Your task to perform on an android device: turn notification dots off Image 0: 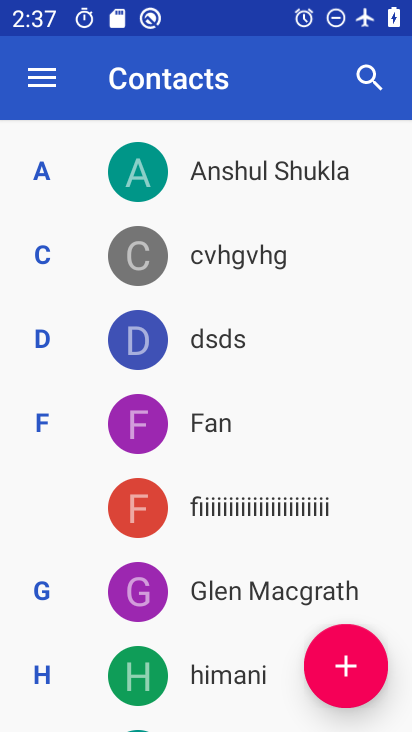
Step 0: press home button
Your task to perform on an android device: turn notification dots off Image 1: 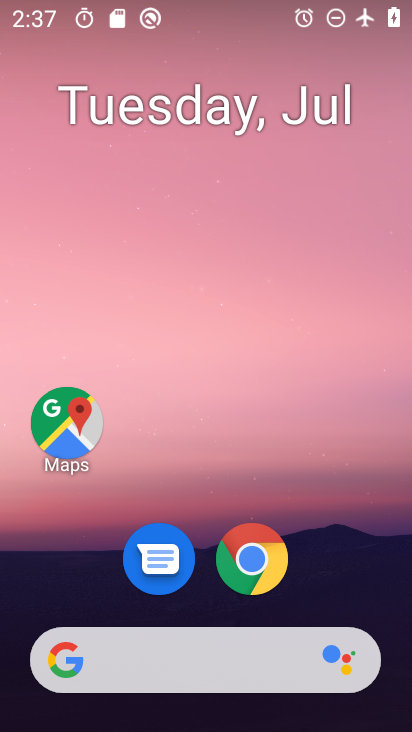
Step 1: drag from (342, 601) to (410, 270)
Your task to perform on an android device: turn notification dots off Image 2: 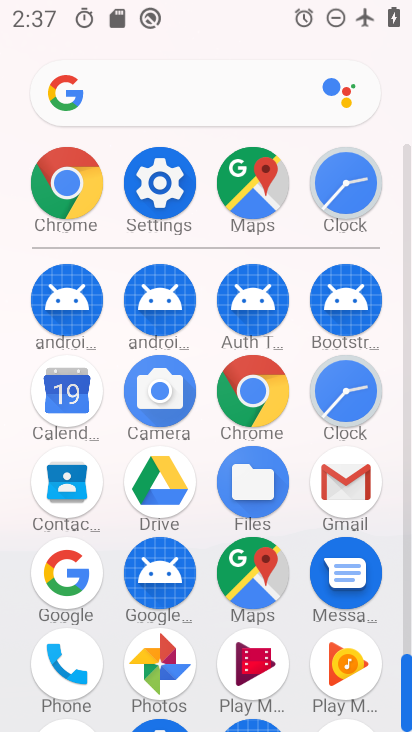
Step 2: click (163, 199)
Your task to perform on an android device: turn notification dots off Image 3: 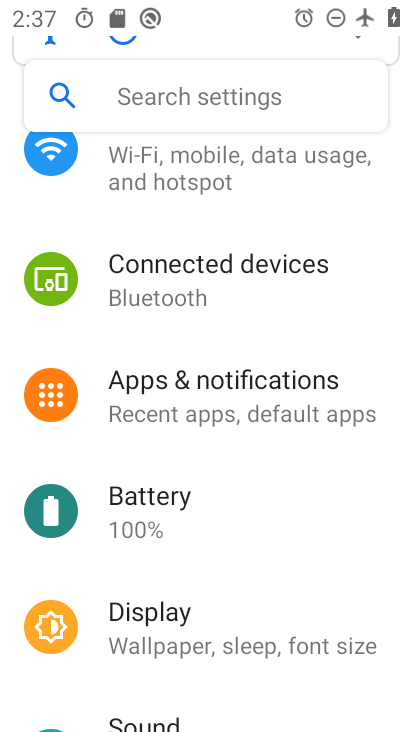
Step 3: drag from (360, 301) to (370, 367)
Your task to perform on an android device: turn notification dots off Image 4: 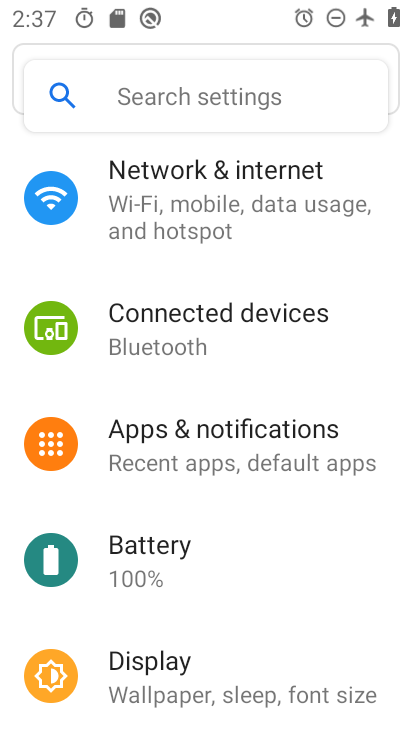
Step 4: drag from (354, 286) to (365, 398)
Your task to perform on an android device: turn notification dots off Image 5: 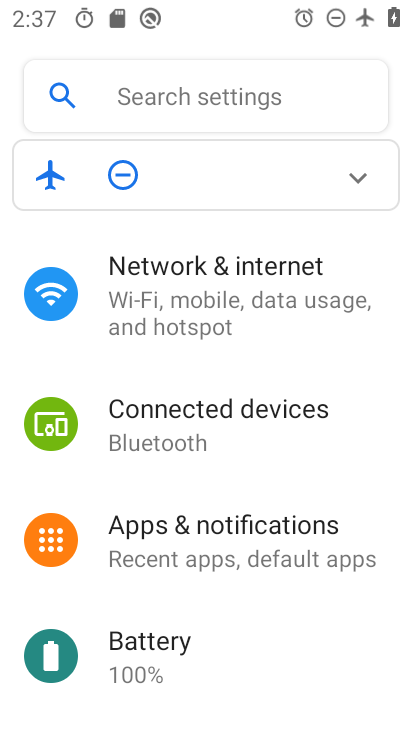
Step 5: click (365, 518)
Your task to perform on an android device: turn notification dots off Image 6: 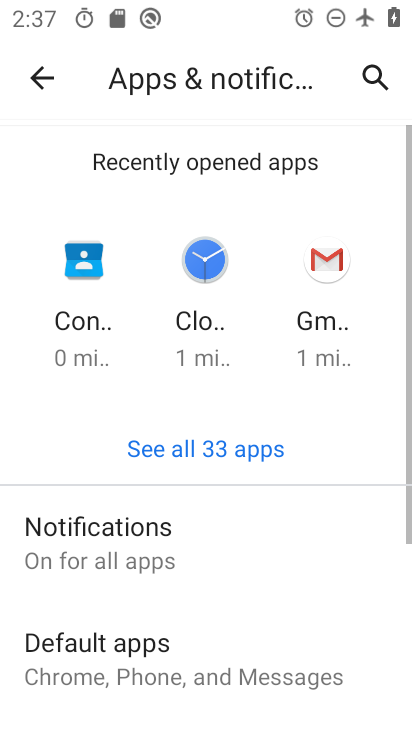
Step 6: drag from (350, 540) to (347, 456)
Your task to perform on an android device: turn notification dots off Image 7: 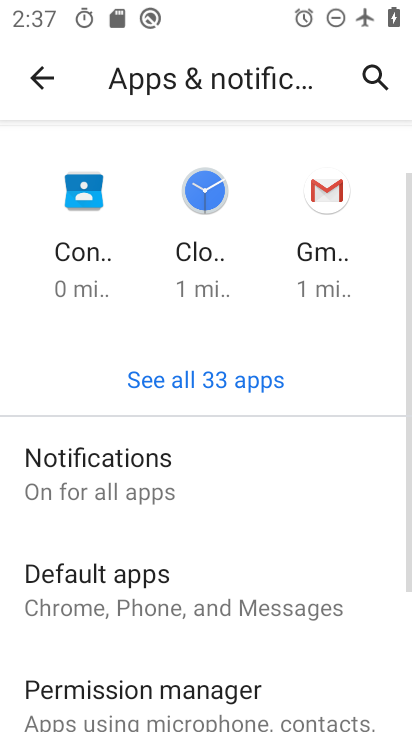
Step 7: drag from (329, 527) to (334, 460)
Your task to perform on an android device: turn notification dots off Image 8: 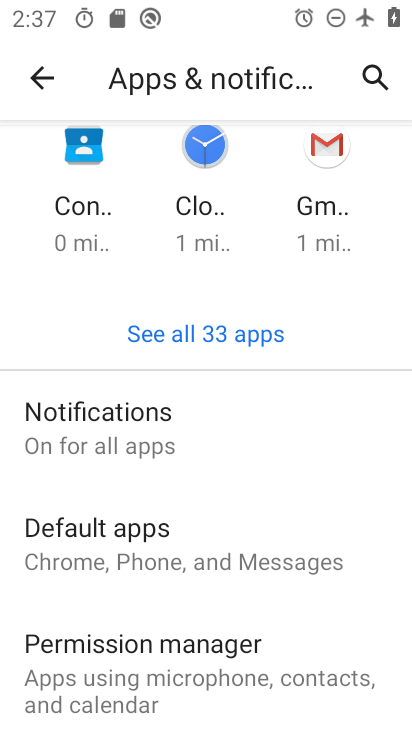
Step 8: drag from (329, 579) to (337, 455)
Your task to perform on an android device: turn notification dots off Image 9: 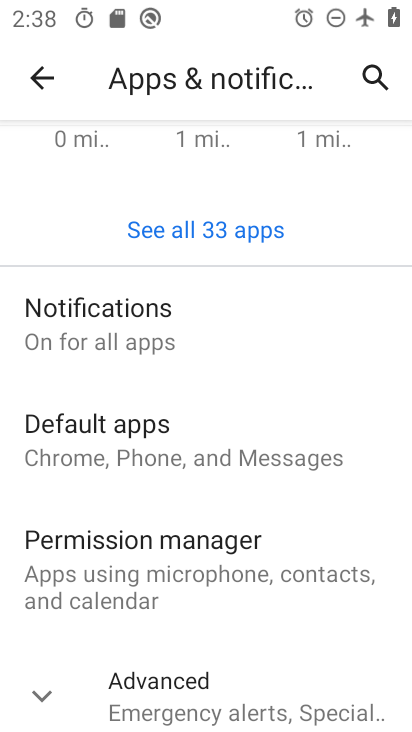
Step 9: drag from (335, 612) to (339, 569)
Your task to perform on an android device: turn notification dots off Image 10: 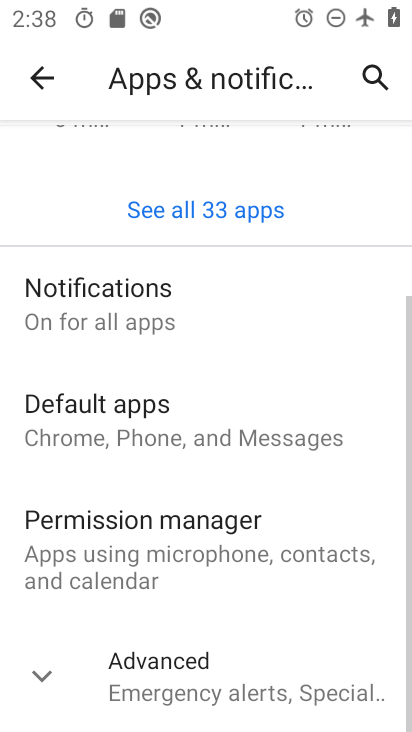
Step 10: click (270, 320)
Your task to perform on an android device: turn notification dots off Image 11: 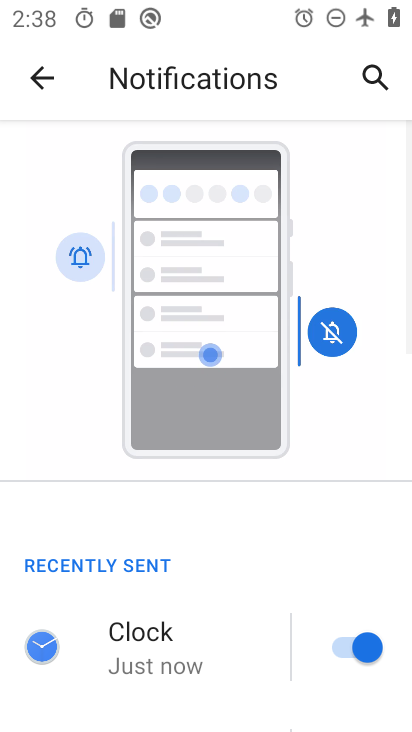
Step 11: drag from (271, 521) to (291, 416)
Your task to perform on an android device: turn notification dots off Image 12: 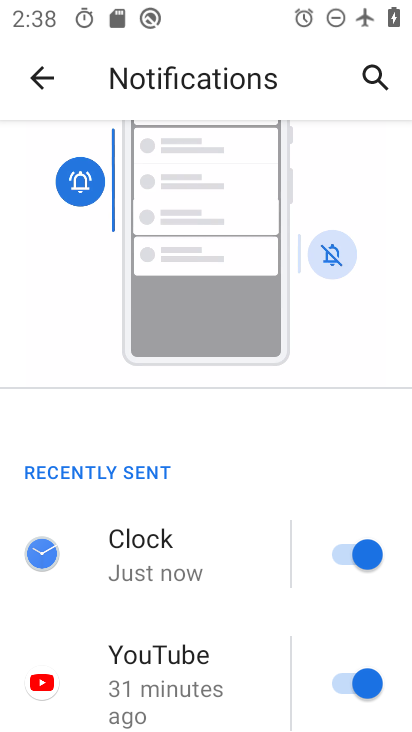
Step 12: drag from (260, 518) to (292, 322)
Your task to perform on an android device: turn notification dots off Image 13: 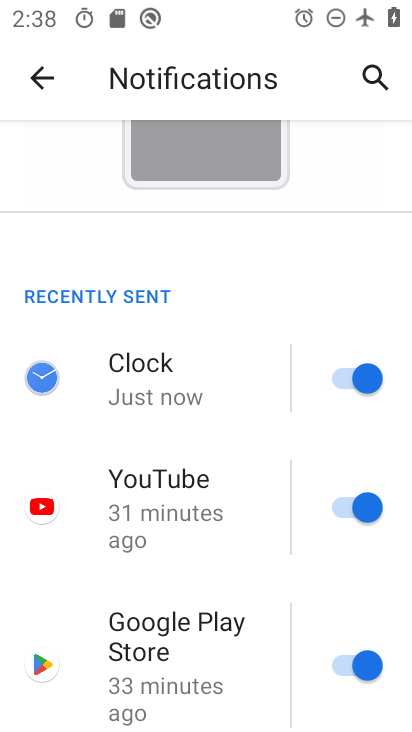
Step 13: drag from (250, 511) to (260, 414)
Your task to perform on an android device: turn notification dots off Image 14: 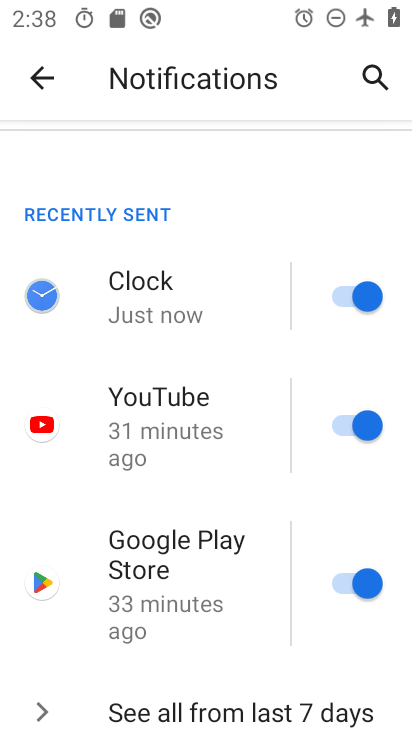
Step 14: drag from (256, 545) to (271, 438)
Your task to perform on an android device: turn notification dots off Image 15: 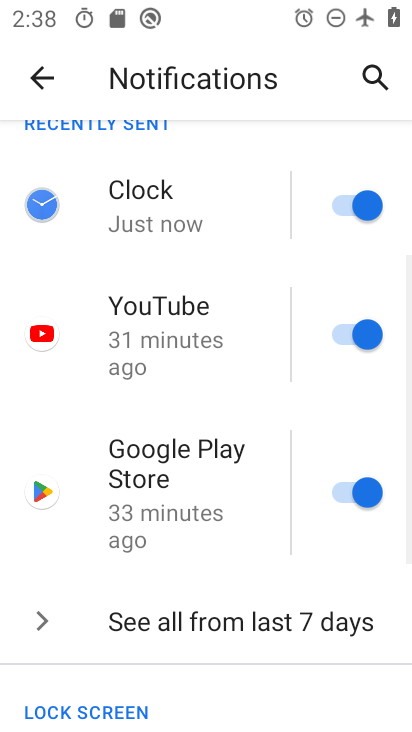
Step 15: drag from (259, 555) to (280, 396)
Your task to perform on an android device: turn notification dots off Image 16: 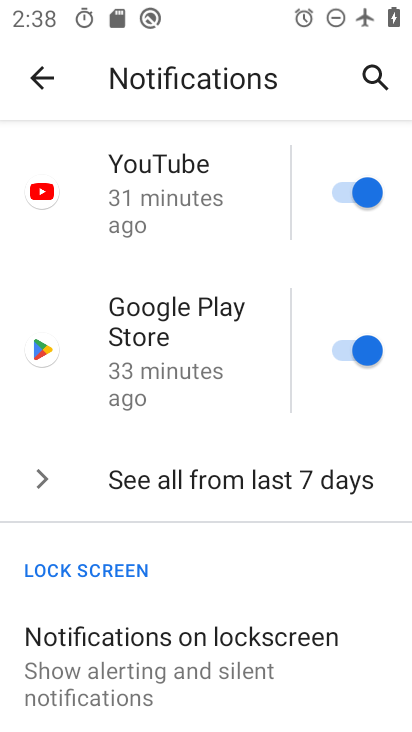
Step 16: drag from (294, 590) to (288, 377)
Your task to perform on an android device: turn notification dots off Image 17: 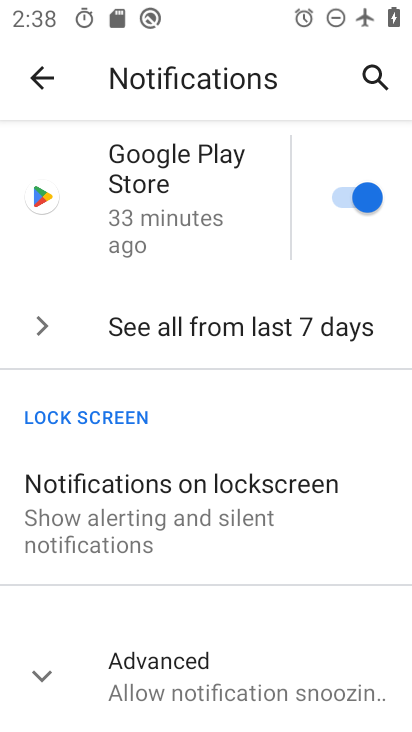
Step 17: click (279, 647)
Your task to perform on an android device: turn notification dots off Image 18: 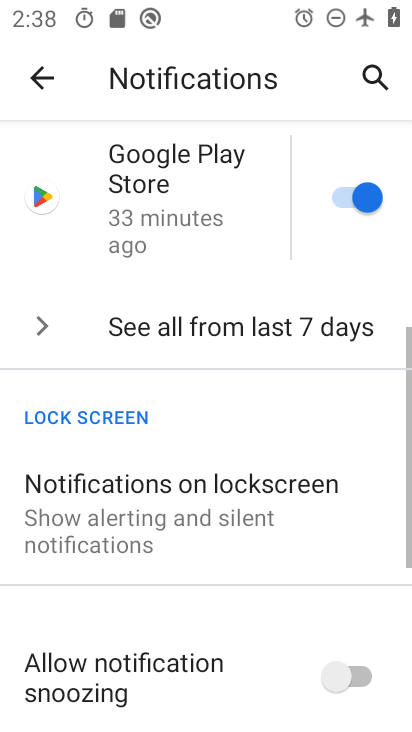
Step 18: drag from (279, 647) to (293, 550)
Your task to perform on an android device: turn notification dots off Image 19: 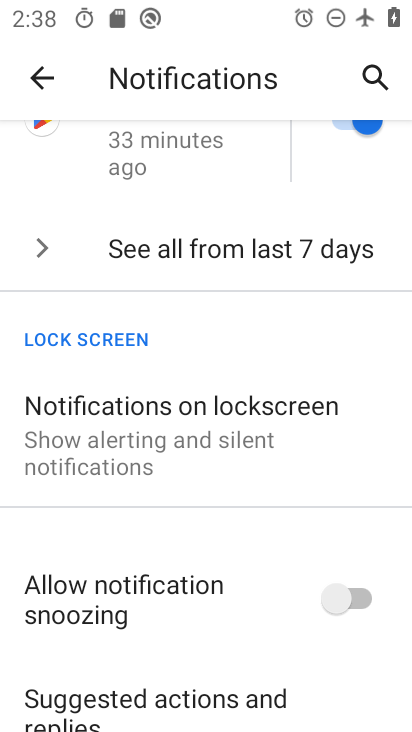
Step 19: drag from (272, 627) to (290, 512)
Your task to perform on an android device: turn notification dots off Image 20: 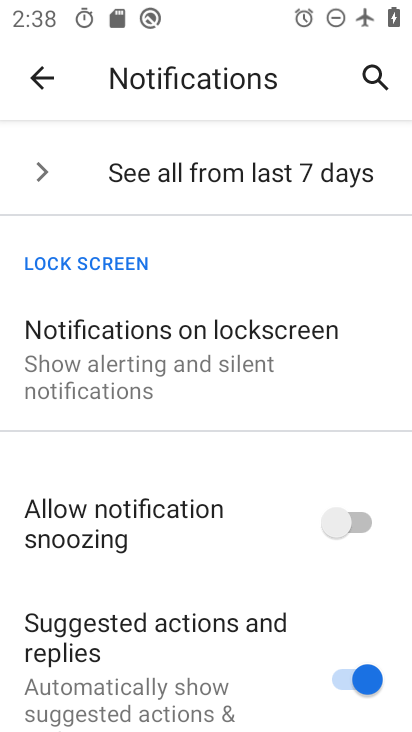
Step 20: drag from (296, 621) to (291, 510)
Your task to perform on an android device: turn notification dots off Image 21: 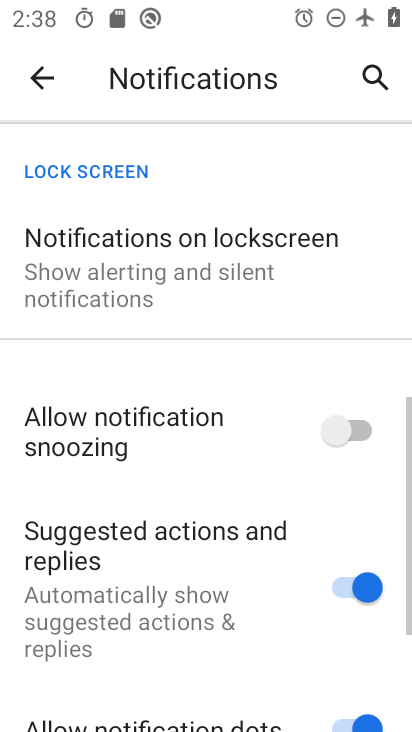
Step 21: drag from (289, 587) to (286, 403)
Your task to perform on an android device: turn notification dots off Image 22: 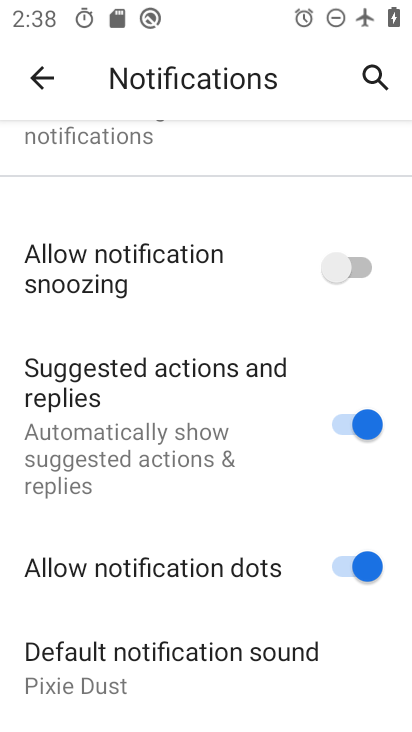
Step 22: click (349, 577)
Your task to perform on an android device: turn notification dots off Image 23: 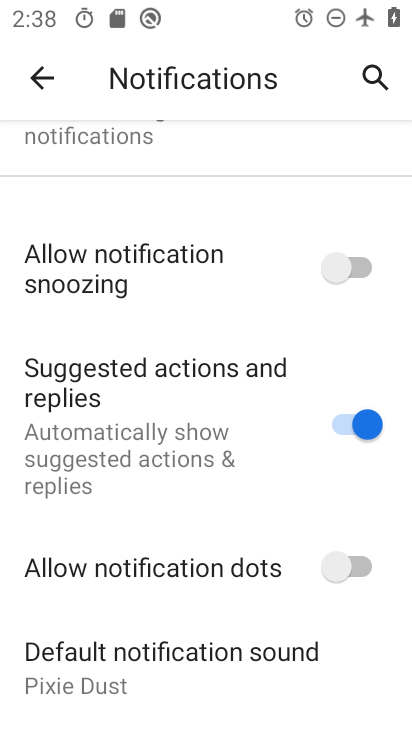
Step 23: task complete